Your task to perform on an android device: Open Google Maps and go to "Timeline" Image 0: 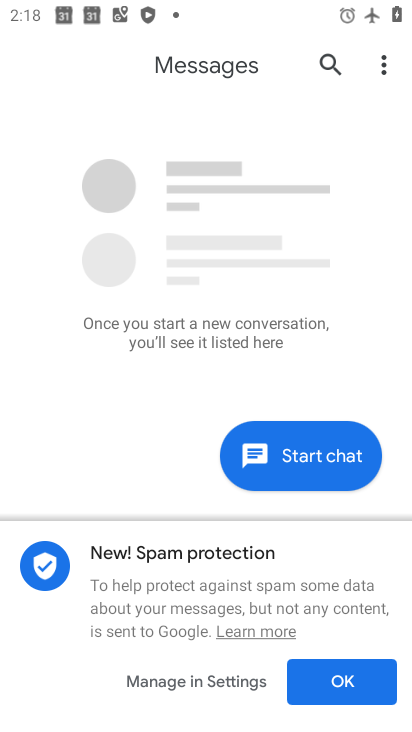
Step 0: press home button
Your task to perform on an android device: Open Google Maps and go to "Timeline" Image 1: 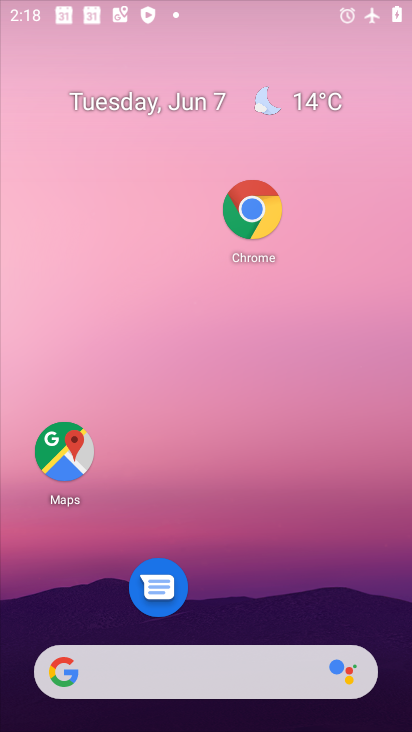
Step 1: drag from (215, 542) to (166, 104)
Your task to perform on an android device: Open Google Maps and go to "Timeline" Image 2: 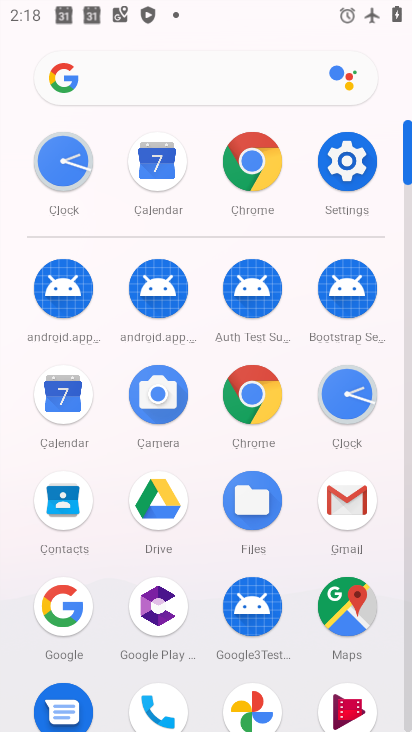
Step 2: click (351, 606)
Your task to perform on an android device: Open Google Maps and go to "Timeline" Image 3: 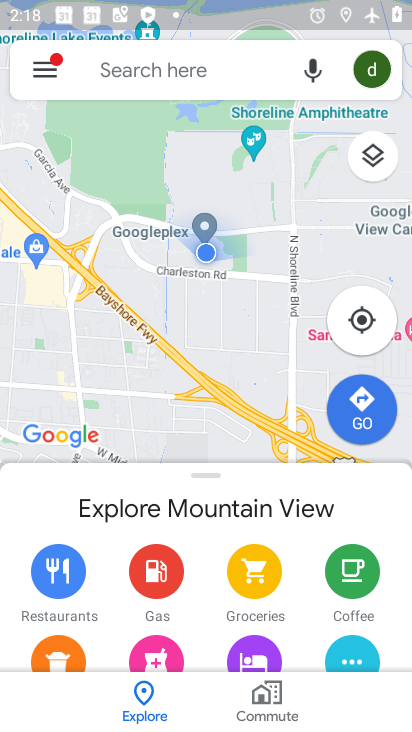
Step 3: click (55, 69)
Your task to perform on an android device: Open Google Maps and go to "Timeline" Image 4: 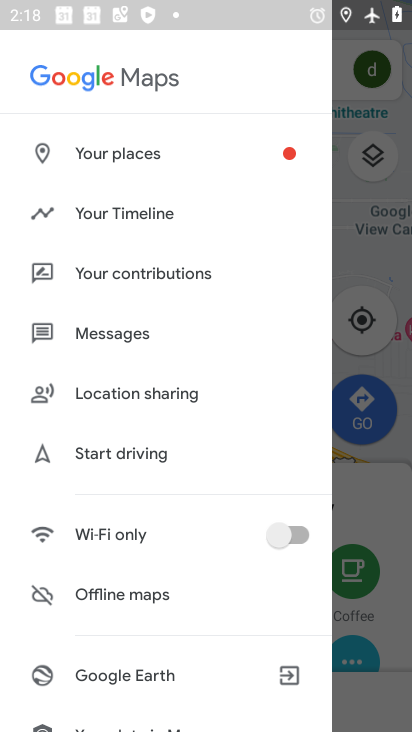
Step 4: click (129, 218)
Your task to perform on an android device: Open Google Maps and go to "Timeline" Image 5: 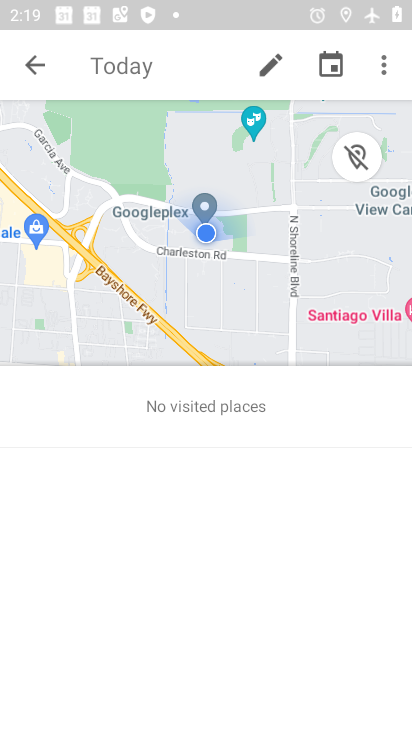
Step 5: task complete